Your task to perform on an android device: turn on the 12-hour format for clock Image 0: 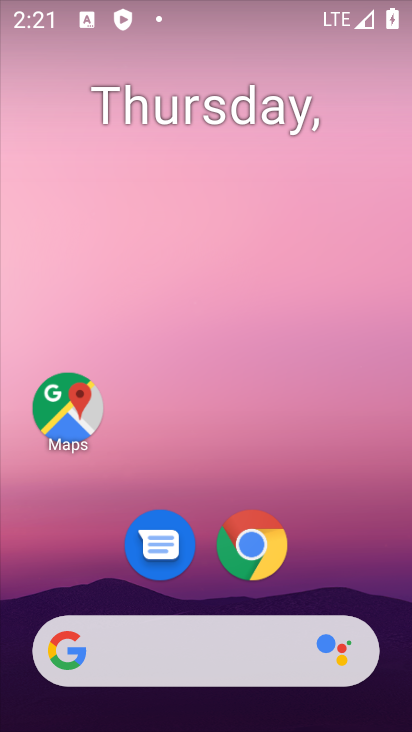
Step 0: drag from (199, 610) to (275, 42)
Your task to perform on an android device: turn on the 12-hour format for clock Image 1: 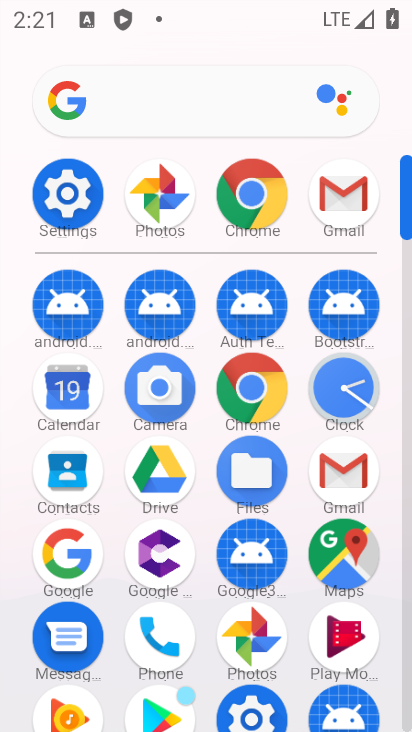
Step 1: click (327, 405)
Your task to perform on an android device: turn on the 12-hour format for clock Image 2: 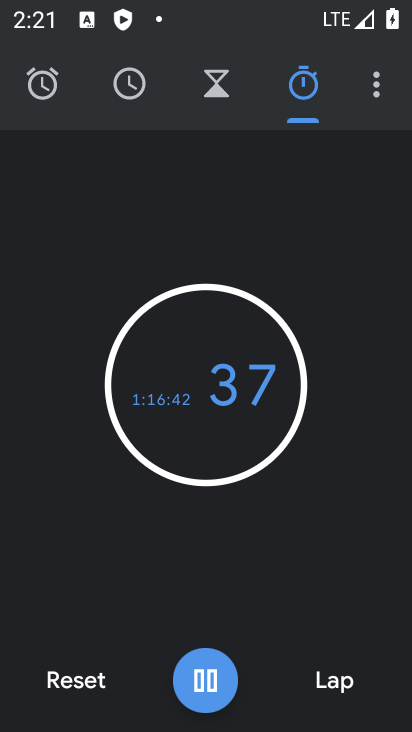
Step 2: click (360, 97)
Your task to perform on an android device: turn on the 12-hour format for clock Image 3: 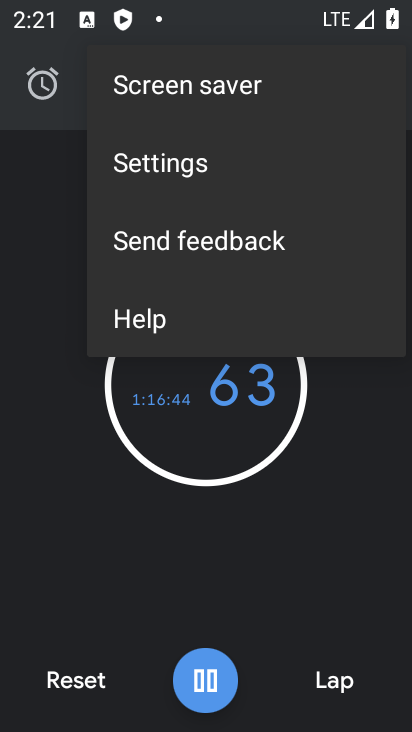
Step 3: click (199, 169)
Your task to perform on an android device: turn on the 12-hour format for clock Image 4: 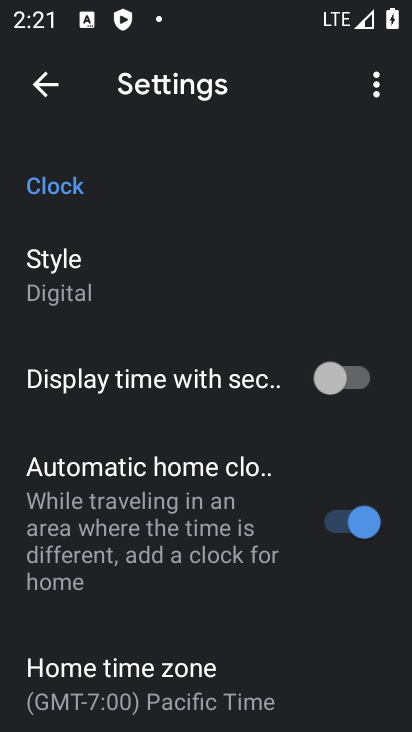
Step 4: drag from (254, 672) to (204, 77)
Your task to perform on an android device: turn on the 12-hour format for clock Image 5: 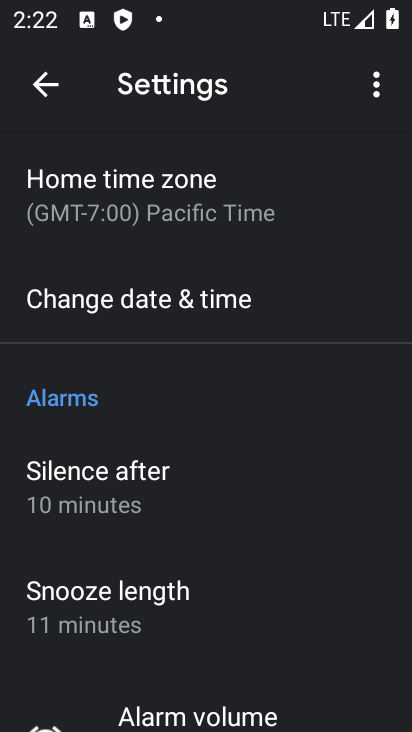
Step 5: click (212, 303)
Your task to perform on an android device: turn on the 12-hour format for clock Image 6: 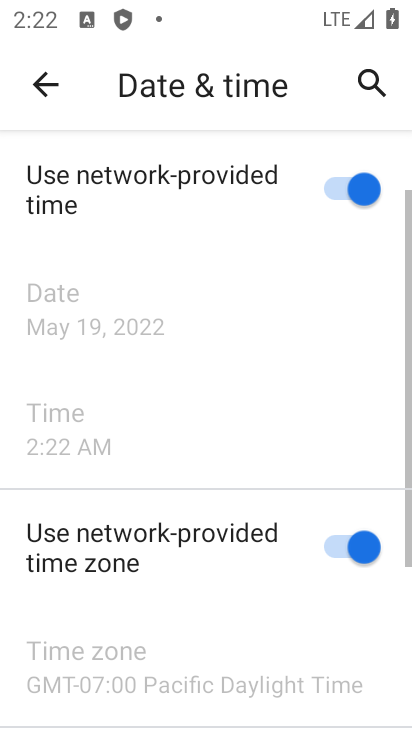
Step 6: drag from (217, 311) to (231, 35)
Your task to perform on an android device: turn on the 12-hour format for clock Image 7: 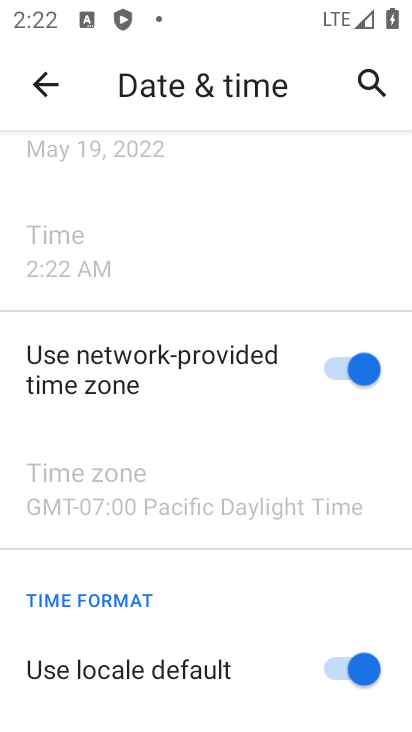
Step 7: drag from (244, 650) to (236, 69)
Your task to perform on an android device: turn on the 12-hour format for clock Image 8: 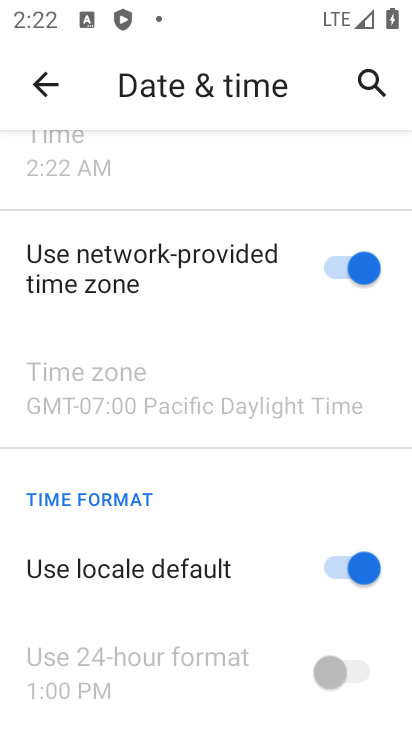
Step 8: click (339, 570)
Your task to perform on an android device: turn on the 12-hour format for clock Image 9: 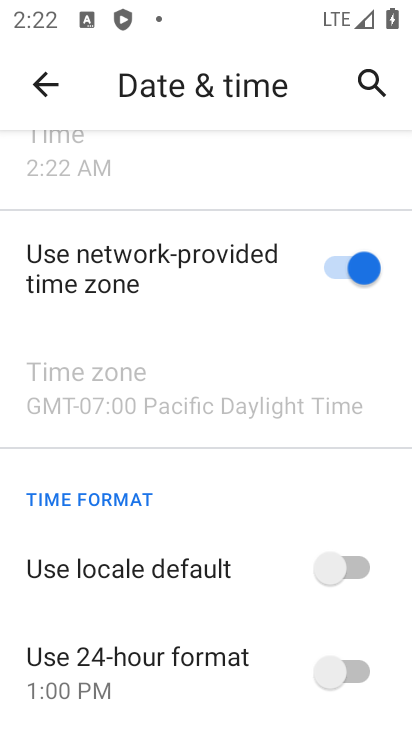
Step 9: task complete